Your task to perform on an android device: turn on javascript in the chrome app Image 0: 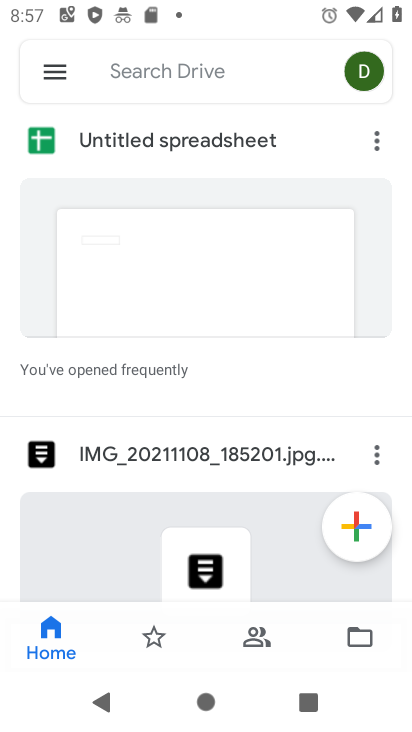
Step 0: press home button
Your task to perform on an android device: turn on javascript in the chrome app Image 1: 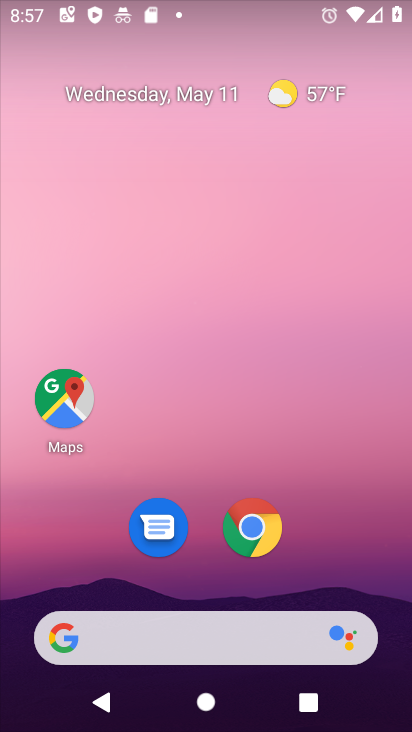
Step 1: click (251, 530)
Your task to perform on an android device: turn on javascript in the chrome app Image 2: 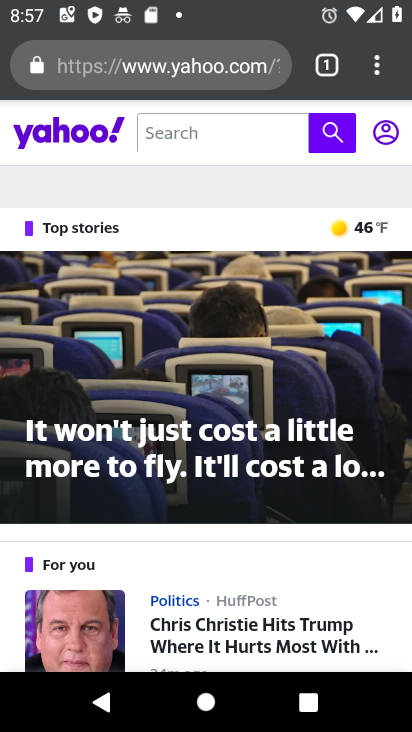
Step 2: drag from (379, 72) to (190, 582)
Your task to perform on an android device: turn on javascript in the chrome app Image 3: 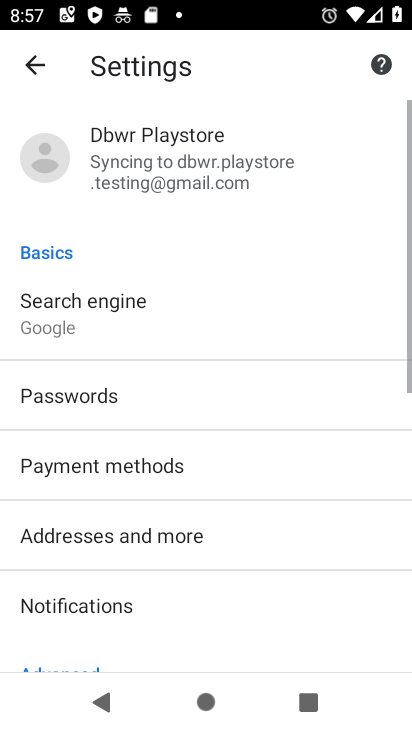
Step 3: drag from (190, 582) to (171, 110)
Your task to perform on an android device: turn on javascript in the chrome app Image 4: 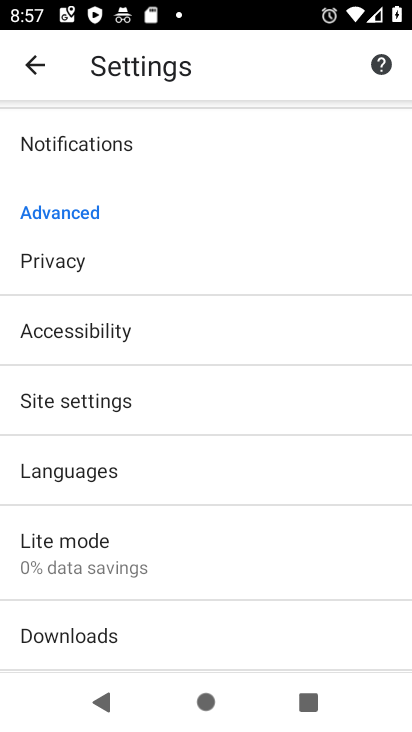
Step 4: click (97, 405)
Your task to perform on an android device: turn on javascript in the chrome app Image 5: 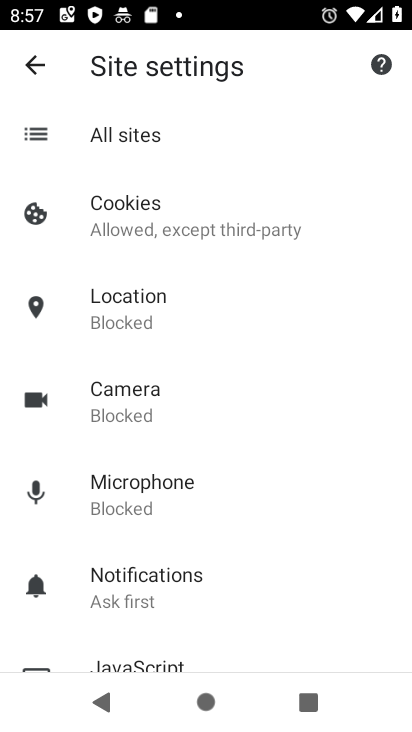
Step 5: drag from (260, 515) to (240, 364)
Your task to perform on an android device: turn on javascript in the chrome app Image 6: 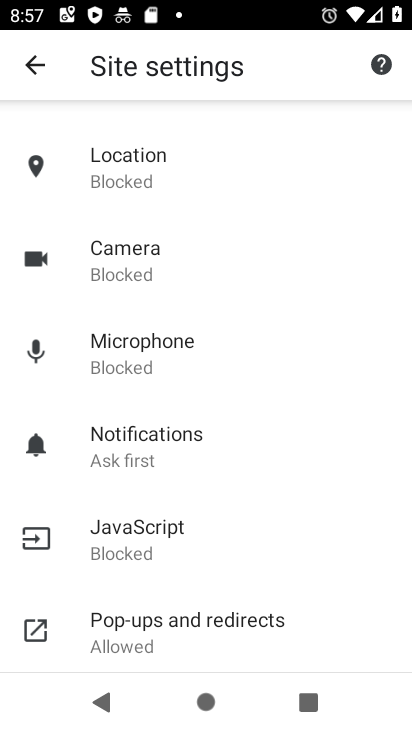
Step 6: click (128, 529)
Your task to perform on an android device: turn on javascript in the chrome app Image 7: 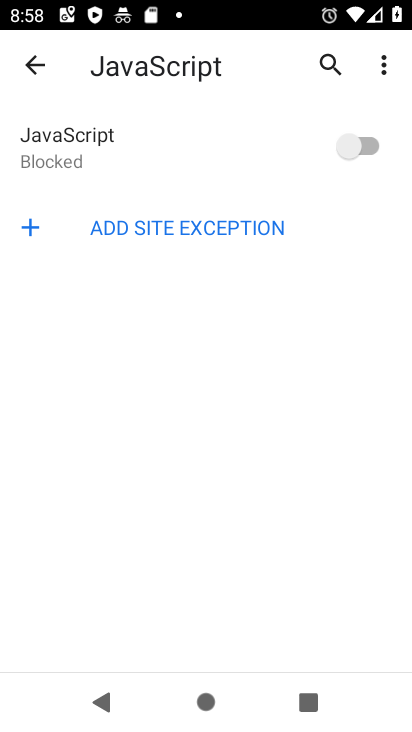
Step 7: click (357, 150)
Your task to perform on an android device: turn on javascript in the chrome app Image 8: 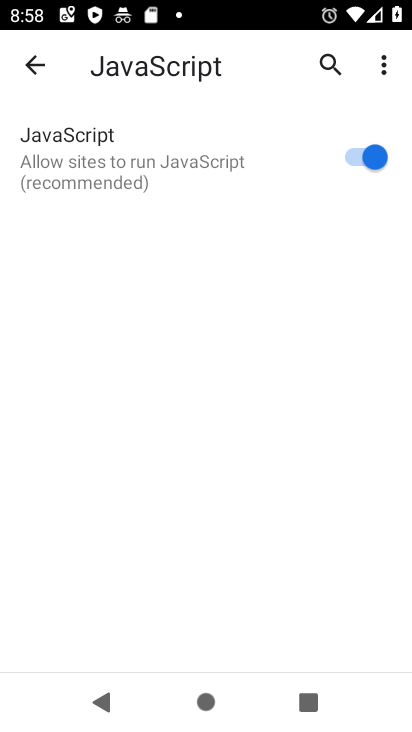
Step 8: task complete